Your task to perform on an android device: Search for hotels in Mexico city Image 0: 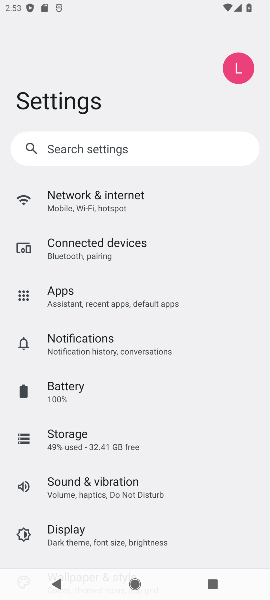
Step 0: press home button
Your task to perform on an android device: Search for hotels in Mexico city Image 1: 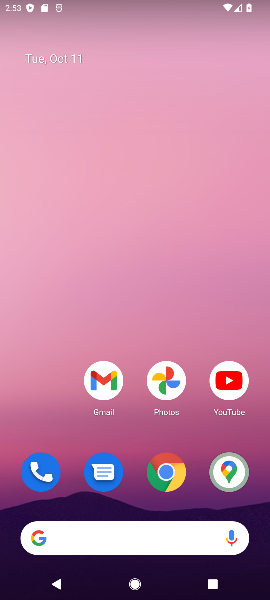
Step 1: click (166, 461)
Your task to perform on an android device: Search for hotels in Mexico city Image 2: 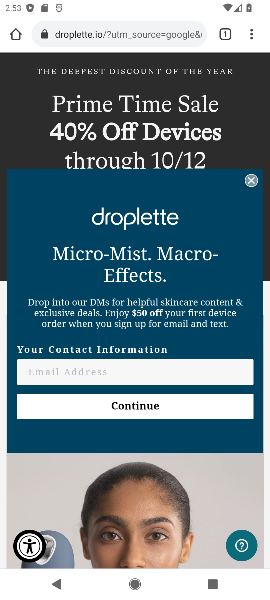
Step 2: click (154, 40)
Your task to perform on an android device: Search for hotels in Mexico city Image 3: 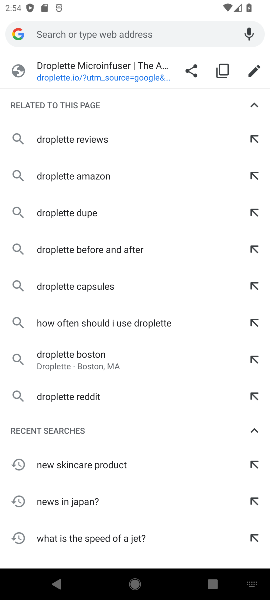
Step 3: type "hotels in Mexico city"
Your task to perform on an android device: Search for hotels in Mexico city Image 4: 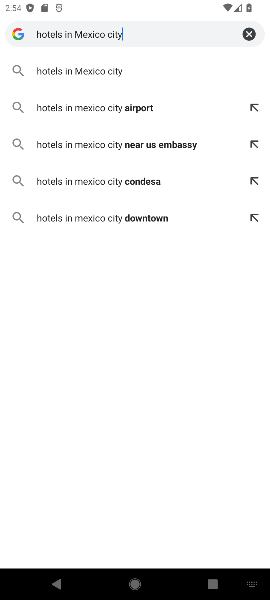
Step 4: click (90, 71)
Your task to perform on an android device: Search for hotels in Mexico city Image 5: 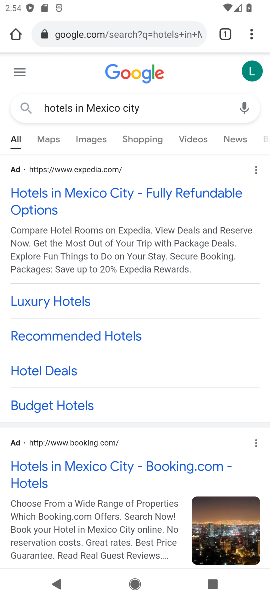
Step 5: drag from (91, 484) to (80, 181)
Your task to perform on an android device: Search for hotels in Mexico city Image 6: 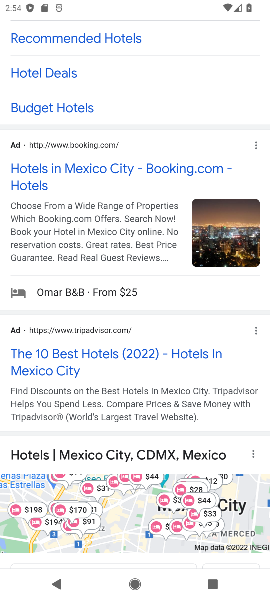
Step 6: drag from (85, 370) to (107, 16)
Your task to perform on an android device: Search for hotels in Mexico city Image 7: 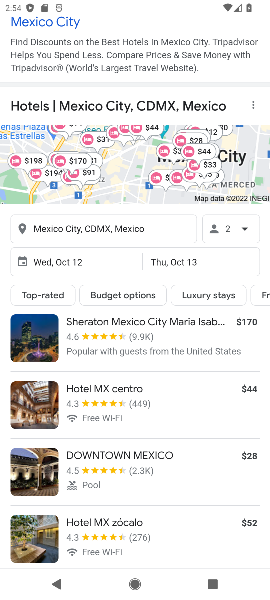
Step 7: drag from (117, 426) to (78, 145)
Your task to perform on an android device: Search for hotels in Mexico city Image 8: 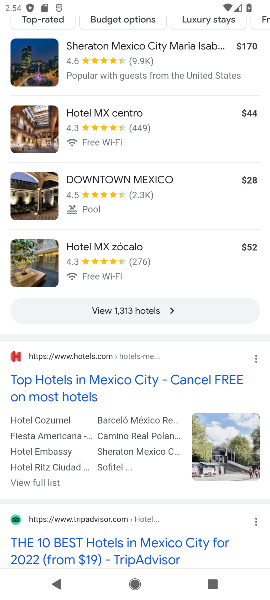
Step 8: click (146, 314)
Your task to perform on an android device: Search for hotels in Mexico city Image 9: 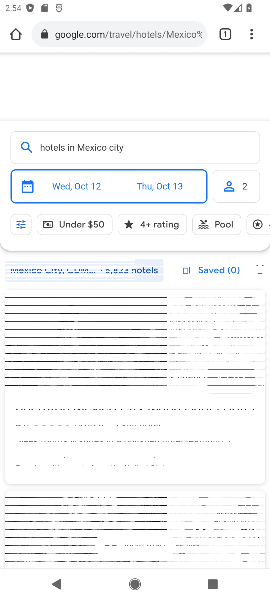
Step 9: task complete